Your task to perform on an android device: check the backup settings in the google photos Image 0: 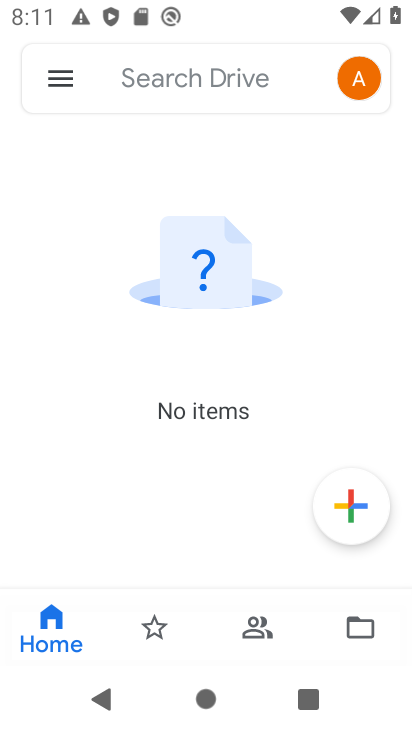
Step 0: press home button
Your task to perform on an android device: check the backup settings in the google photos Image 1: 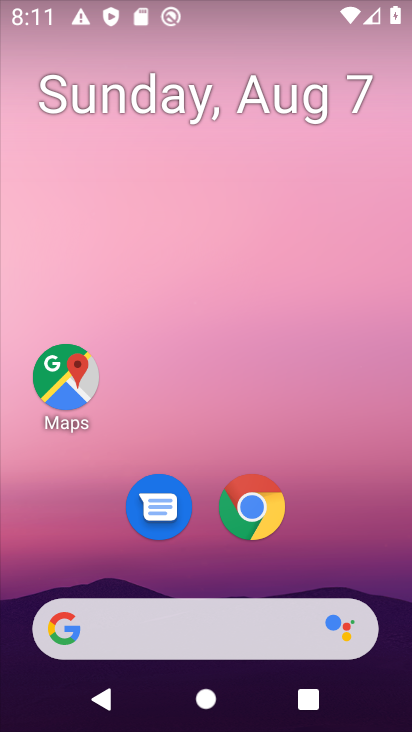
Step 1: drag from (146, 632) to (323, 78)
Your task to perform on an android device: check the backup settings in the google photos Image 2: 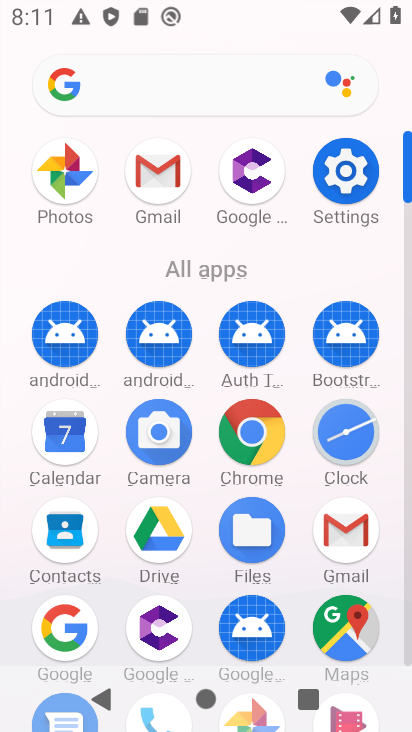
Step 2: click (66, 169)
Your task to perform on an android device: check the backup settings in the google photos Image 3: 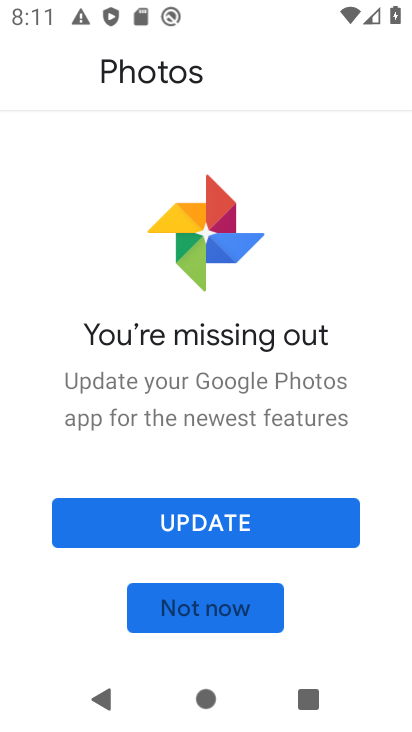
Step 3: click (231, 527)
Your task to perform on an android device: check the backup settings in the google photos Image 4: 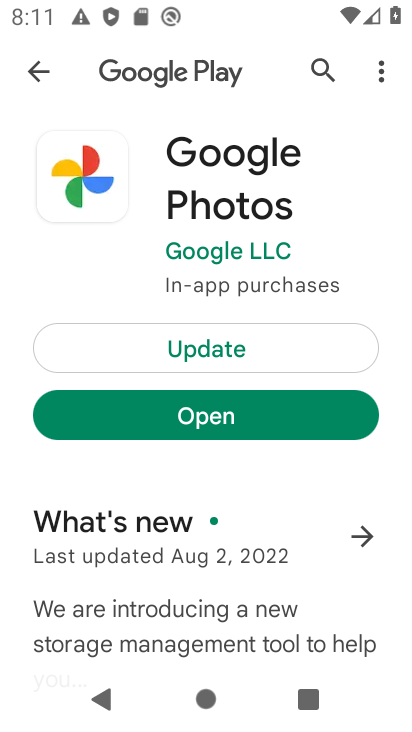
Step 4: click (238, 347)
Your task to perform on an android device: check the backup settings in the google photos Image 5: 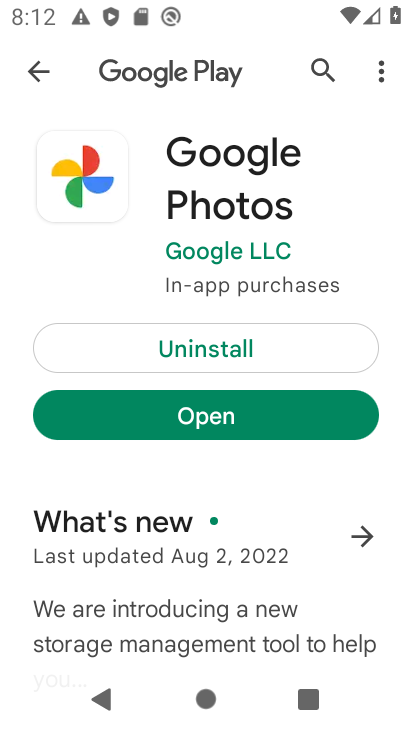
Step 5: click (210, 420)
Your task to perform on an android device: check the backup settings in the google photos Image 6: 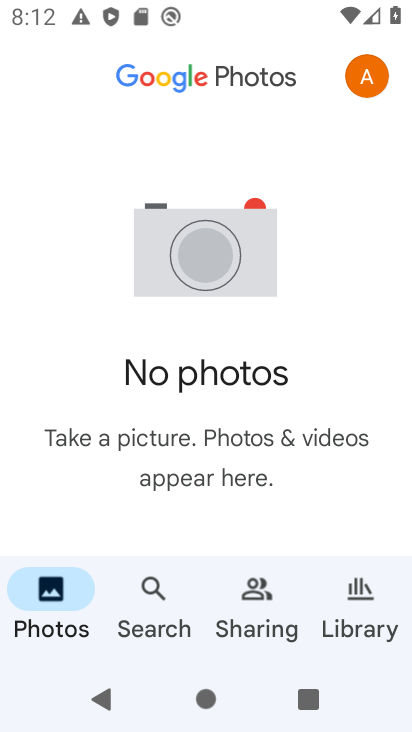
Step 6: click (374, 76)
Your task to perform on an android device: check the backup settings in the google photos Image 7: 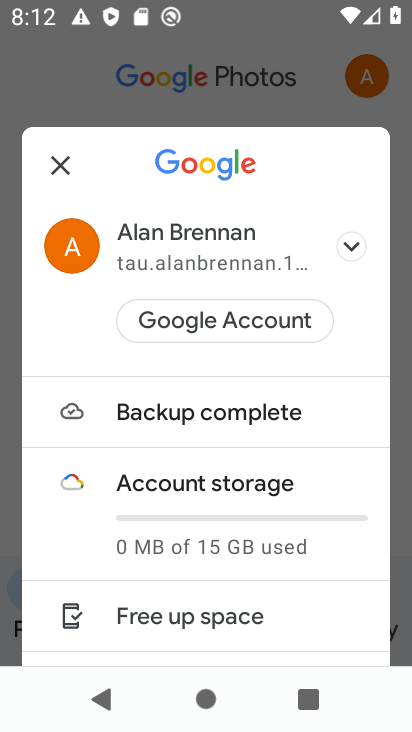
Step 7: drag from (302, 623) to (301, 207)
Your task to perform on an android device: check the backup settings in the google photos Image 8: 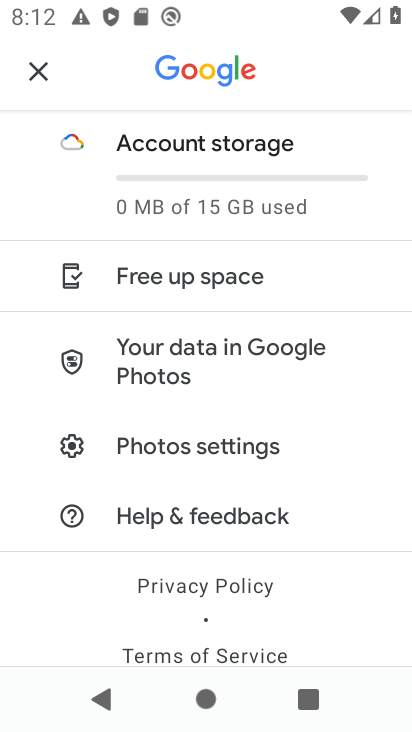
Step 8: click (237, 444)
Your task to perform on an android device: check the backup settings in the google photos Image 9: 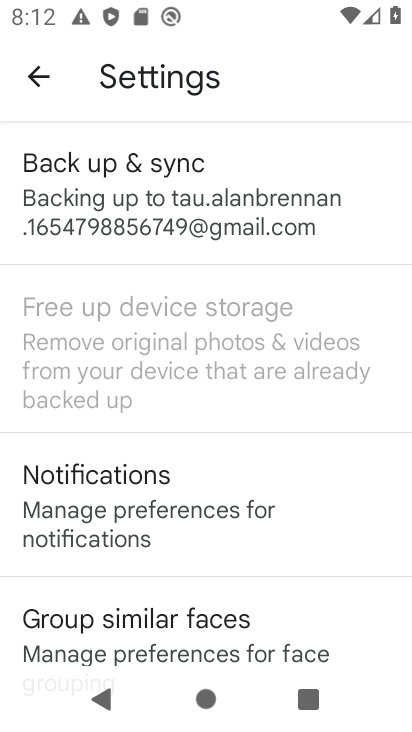
Step 9: click (229, 248)
Your task to perform on an android device: check the backup settings in the google photos Image 10: 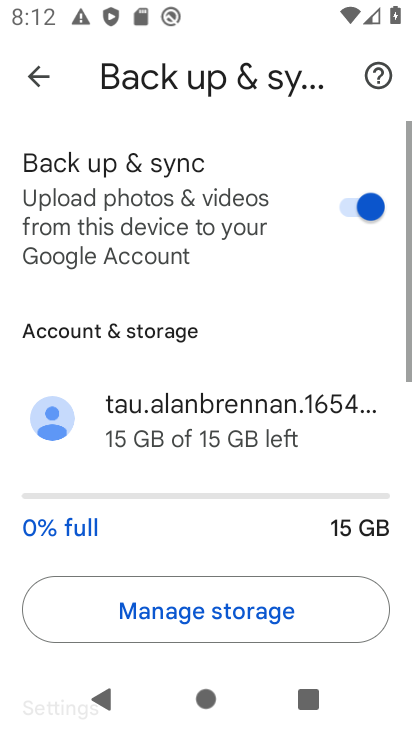
Step 10: drag from (212, 517) to (328, 51)
Your task to perform on an android device: check the backup settings in the google photos Image 11: 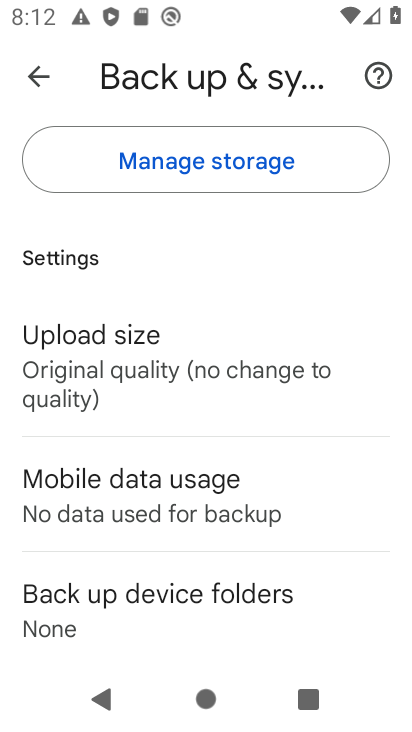
Step 11: click (143, 385)
Your task to perform on an android device: check the backup settings in the google photos Image 12: 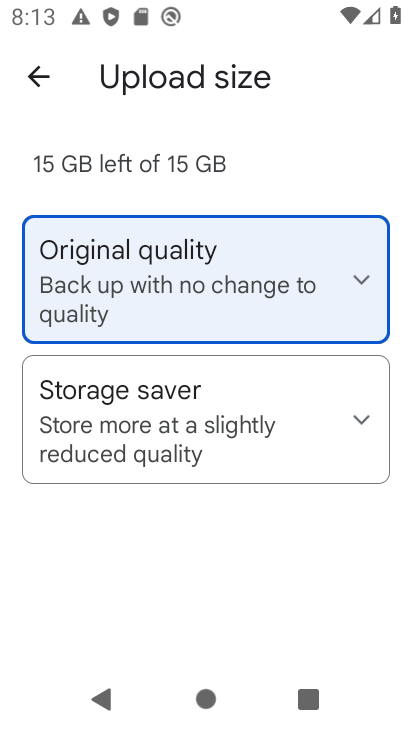
Step 12: click (357, 412)
Your task to perform on an android device: check the backup settings in the google photos Image 13: 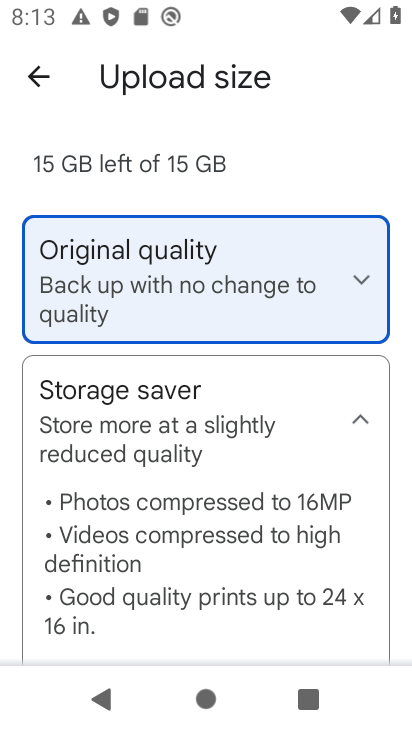
Step 13: drag from (147, 619) to (260, 328)
Your task to perform on an android device: check the backup settings in the google photos Image 14: 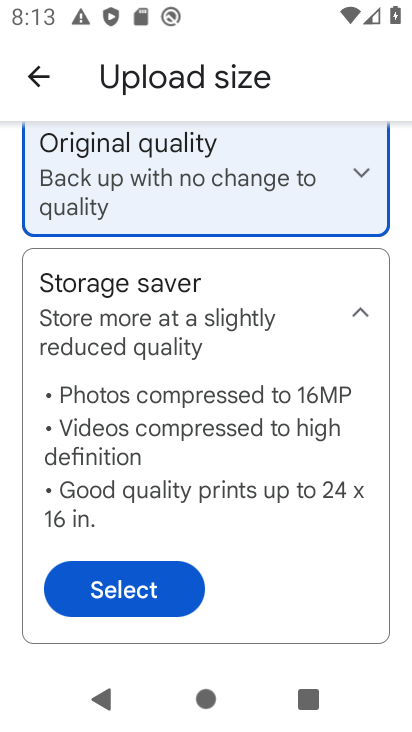
Step 14: click (127, 583)
Your task to perform on an android device: check the backup settings in the google photos Image 15: 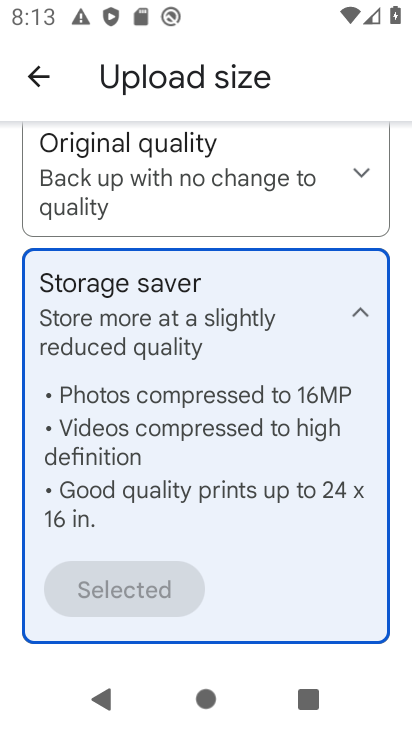
Step 15: task complete